Your task to perform on an android device: turn off location Image 0: 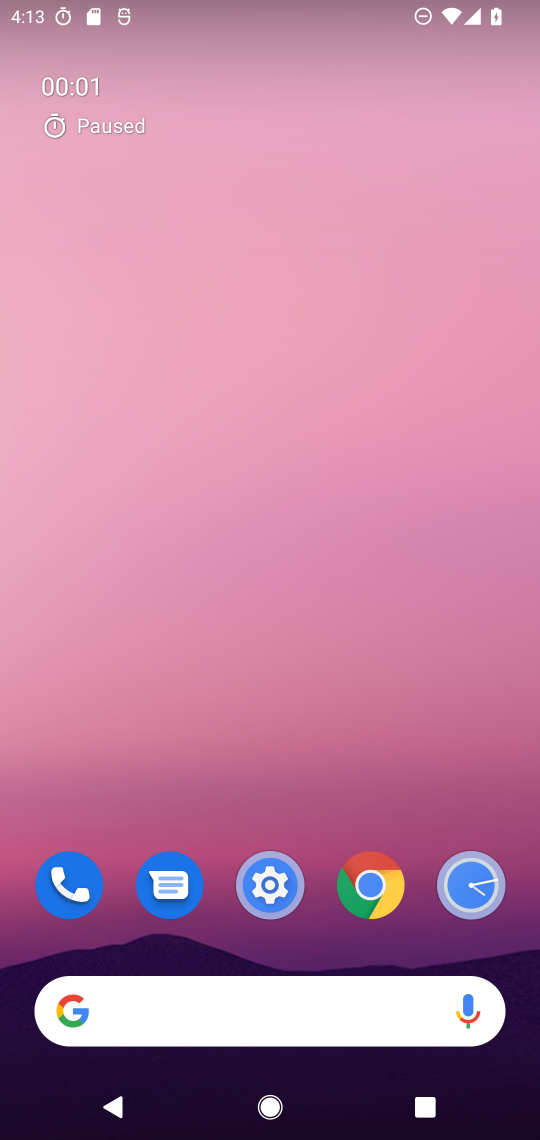
Step 0: drag from (224, 913) to (233, 680)
Your task to perform on an android device: turn off location Image 1: 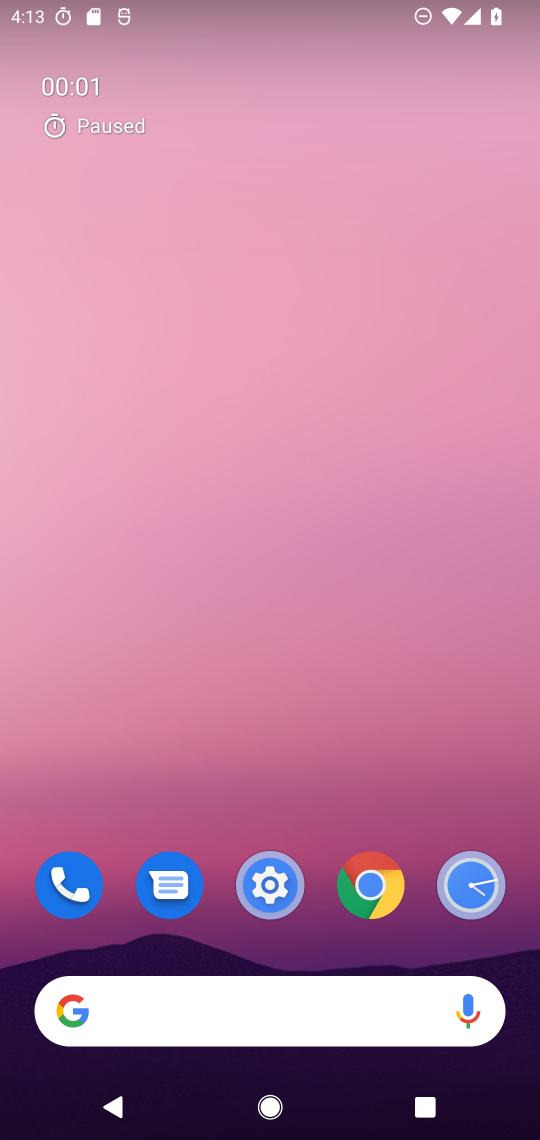
Step 1: drag from (225, 952) to (217, 592)
Your task to perform on an android device: turn off location Image 2: 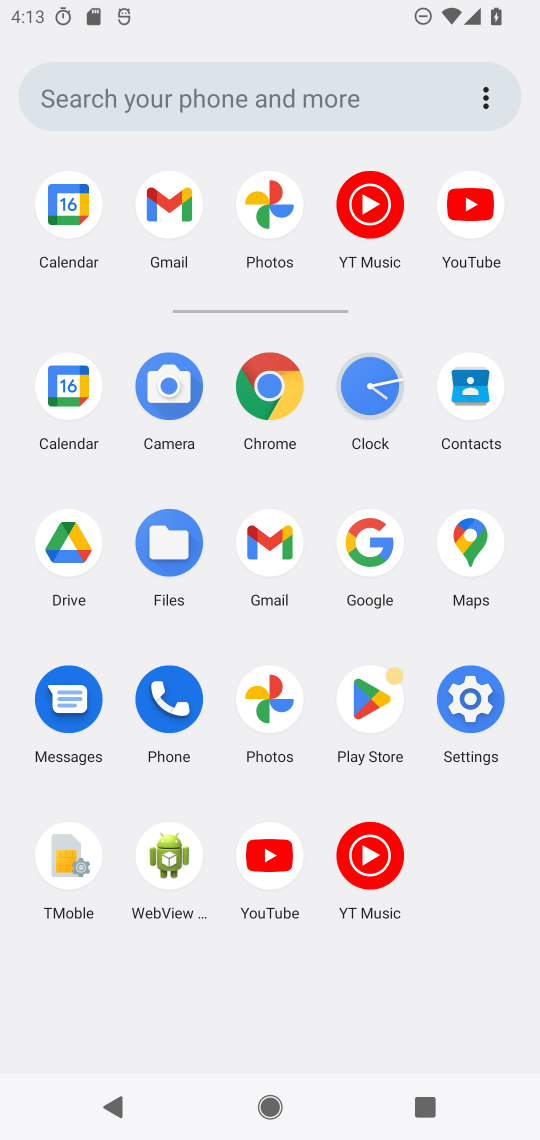
Step 2: click (477, 700)
Your task to perform on an android device: turn off location Image 3: 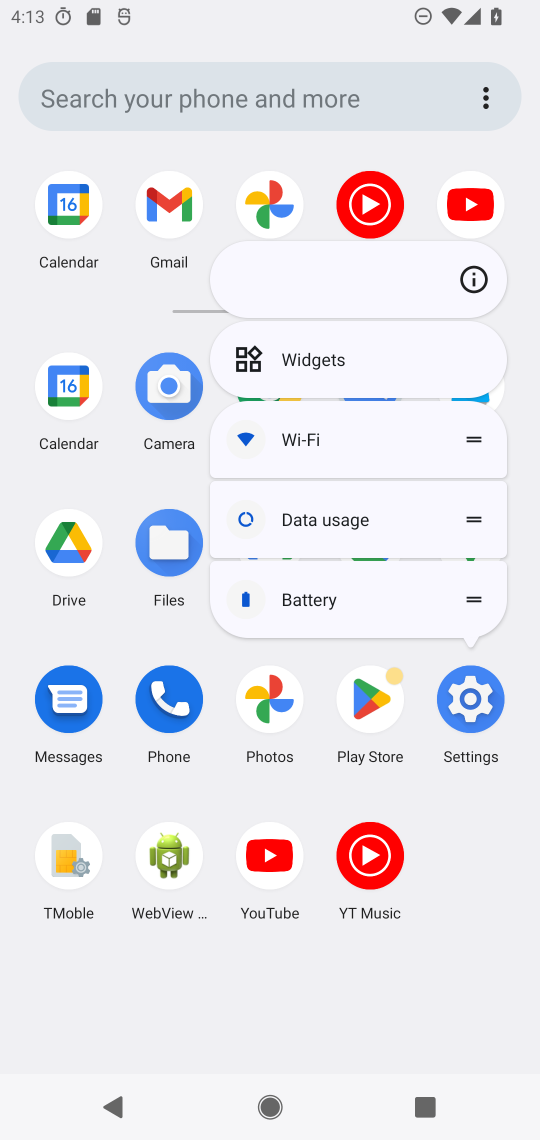
Step 3: click (474, 700)
Your task to perform on an android device: turn off location Image 4: 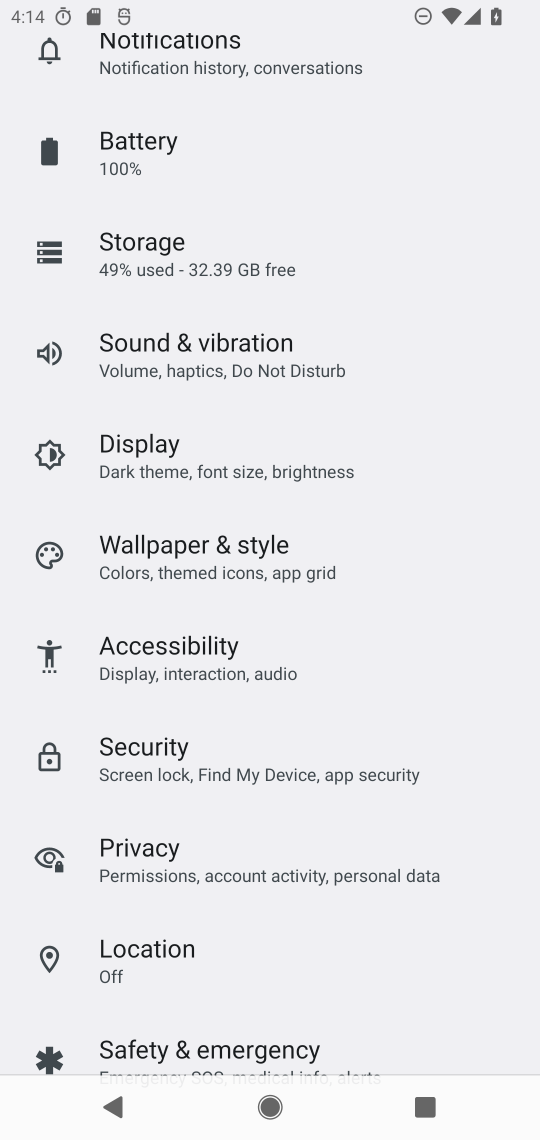
Step 4: click (146, 964)
Your task to perform on an android device: turn off location Image 5: 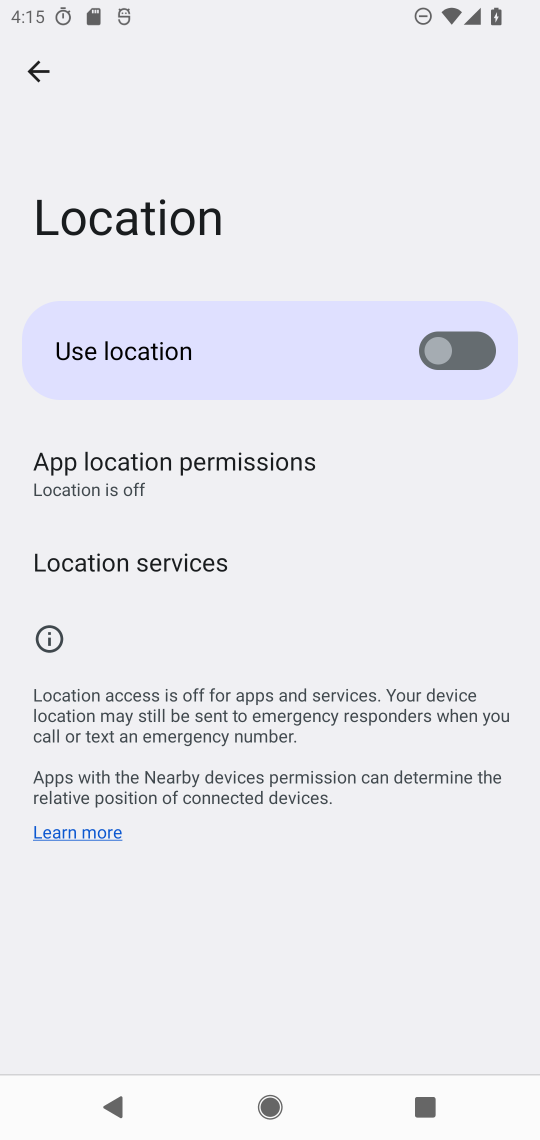
Step 5: task complete